Your task to perform on an android device: Search for logitech g903 on walmart.com, select the first entry, add it to the cart, then select checkout. Image 0: 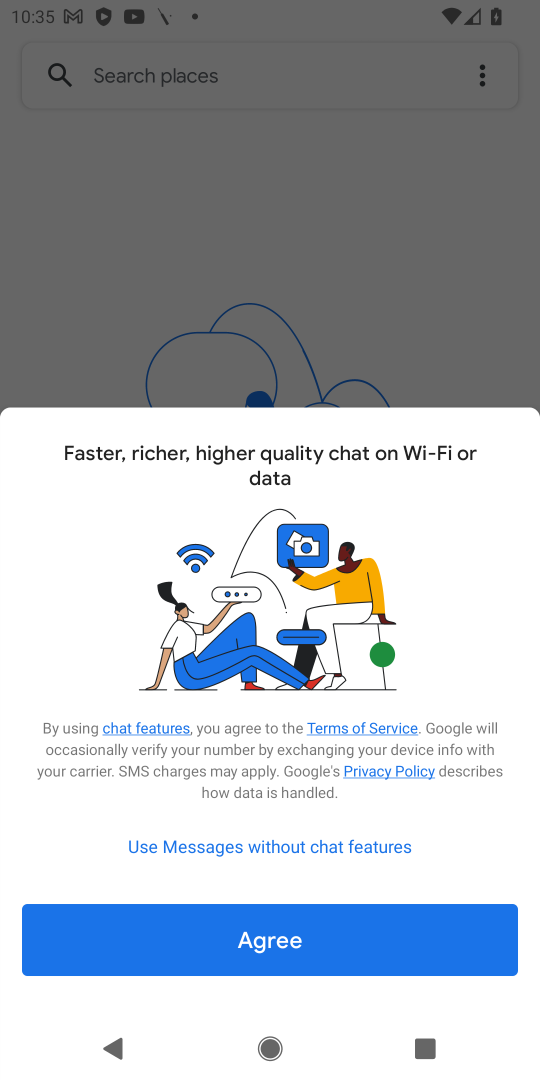
Step 0: press home button
Your task to perform on an android device: Search for logitech g903 on walmart.com, select the first entry, add it to the cart, then select checkout. Image 1: 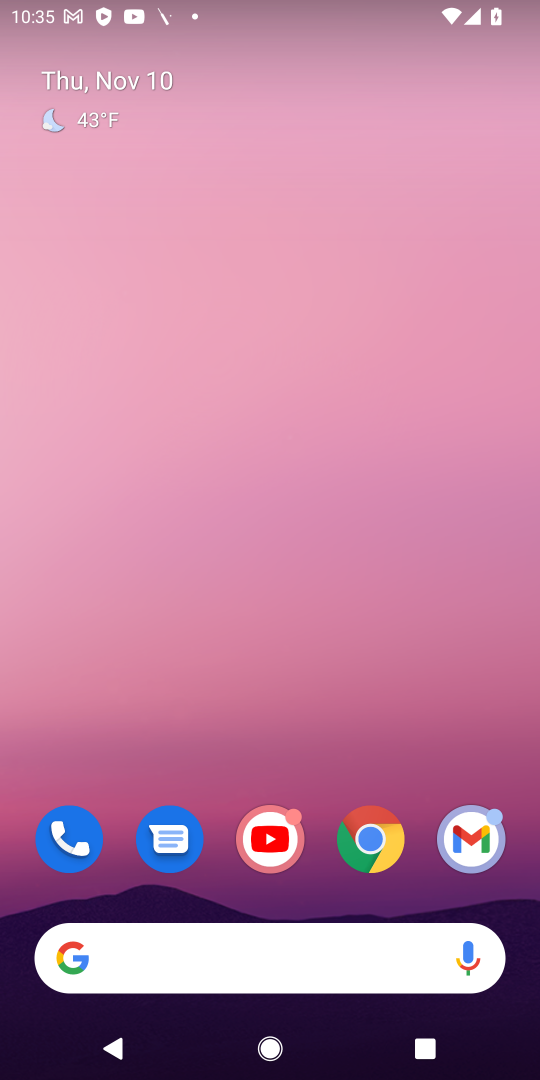
Step 1: click (375, 834)
Your task to perform on an android device: Search for logitech g903 on walmart.com, select the first entry, add it to the cart, then select checkout. Image 2: 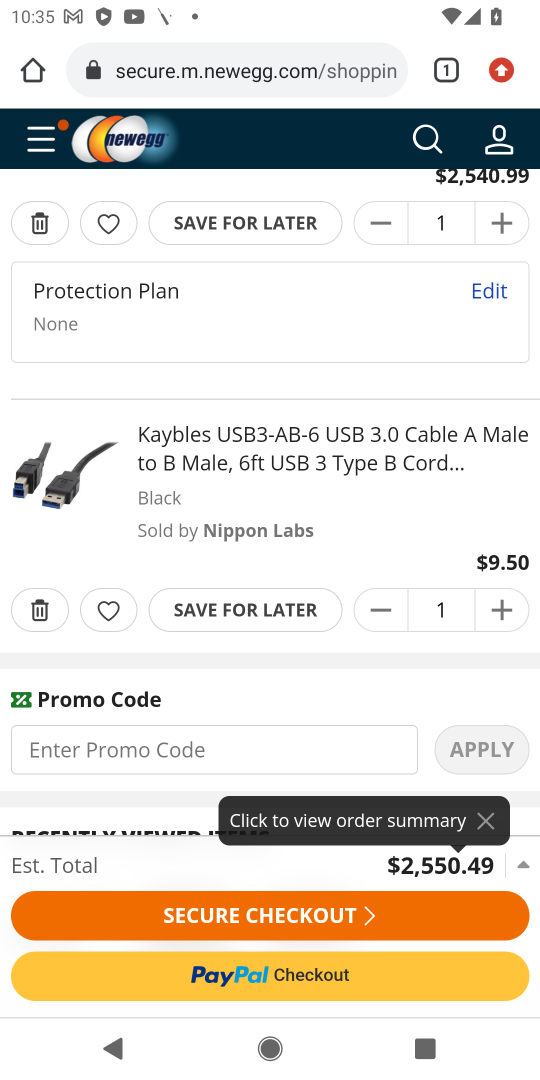
Step 2: click (294, 61)
Your task to perform on an android device: Search for logitech g903 on walmart.com, select the first entry, add it to the cart, then select checkout. Image 3: 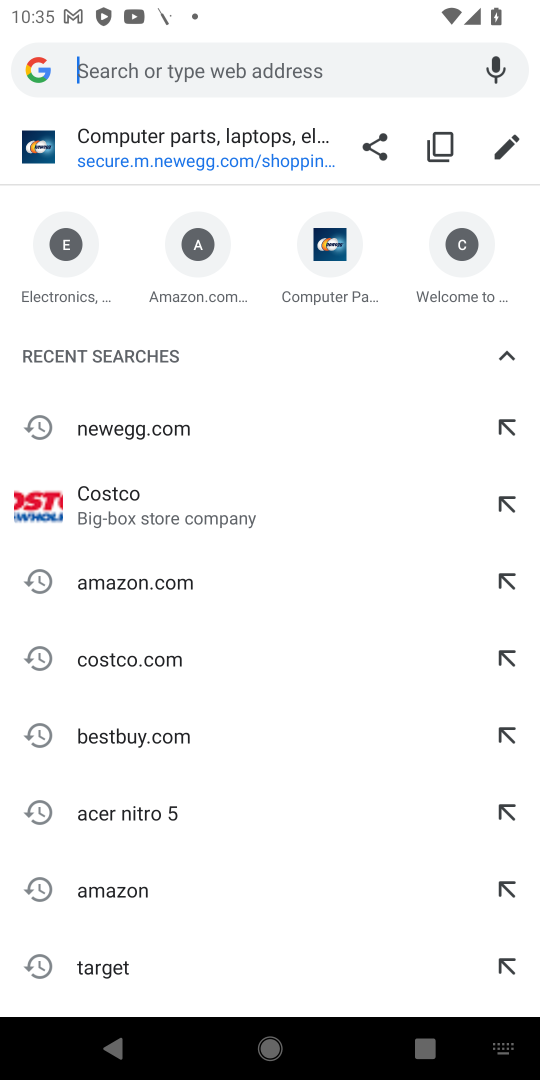
Step 3: drag from (158, 722) to (261, 306)
Your task to perform on an android device: Search for logitech g903 on walmart.com, select the first entry, add it to the cart, then select checkout. Image 4: 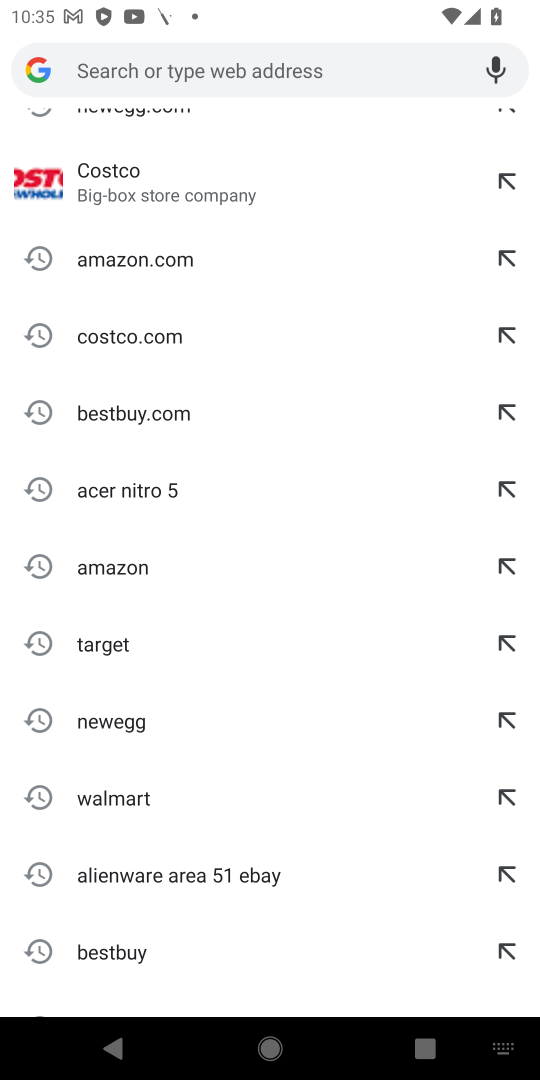
Step 4: click (111, 796)
Your task to perform on an android device: Search for logitech g903 on walmart.com, select the first entry, add it to the cart, then select checkout. Image 5: 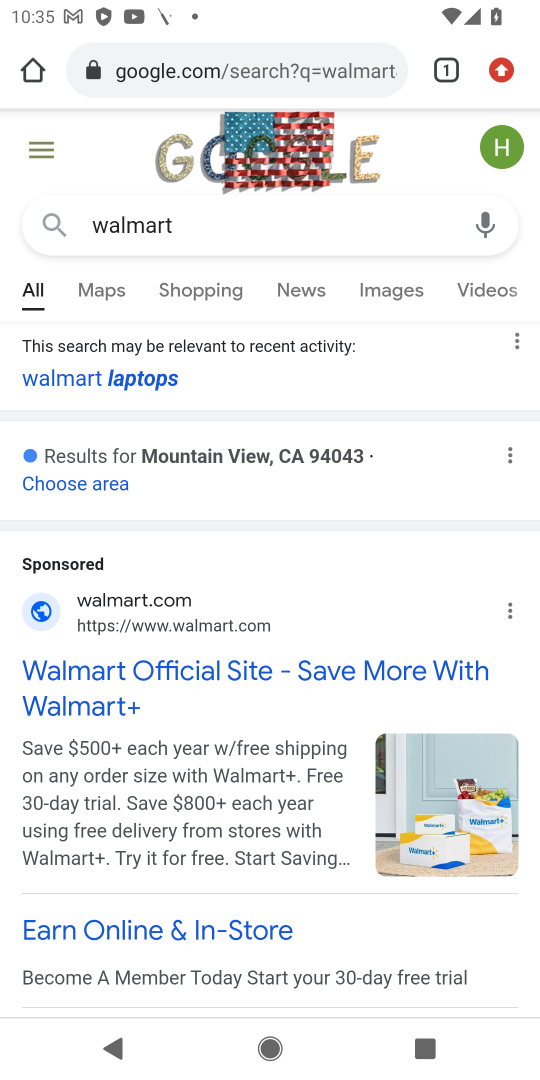
Step 5: drag from (205, 783) to (331, 407)
Your task to perform on an android device: Search for logitech g903 on walmart.com, select the first entry, add it to the cart, then select checkout. Image 6: 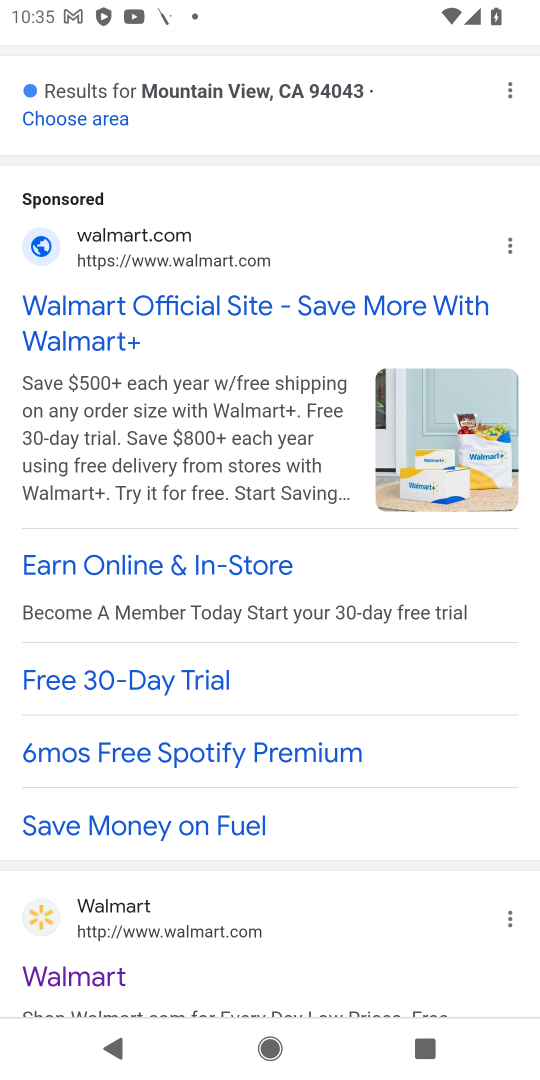
Step 6: click (188, 925)
Your task to perform on an android device: Search for logitech g903 on walmart.com, select the first entry, add it to the cart, then select checkout. Image 7: 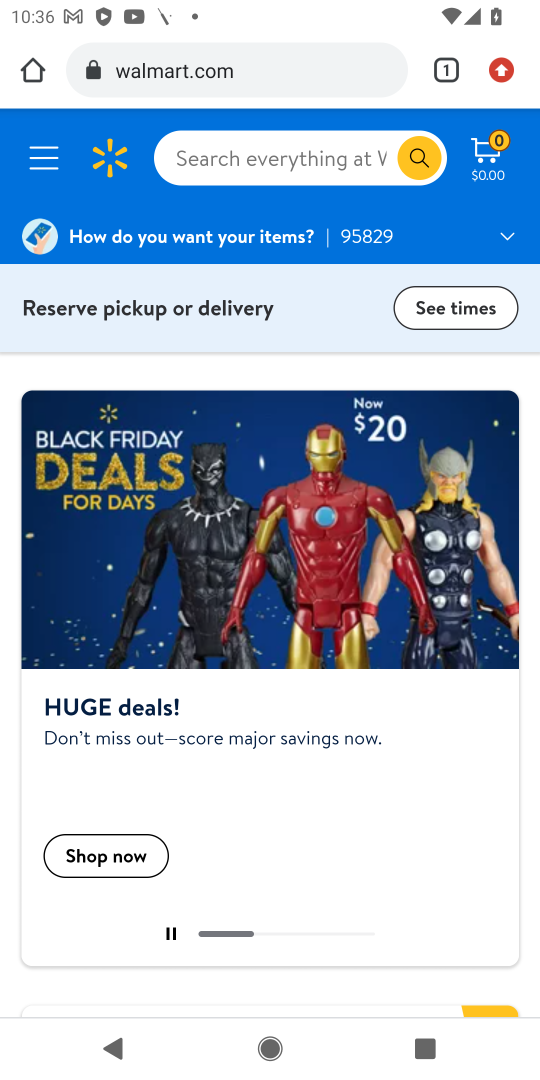
Step 7: click (341, 158)
Your task to perform on an android device: Search for logitech g903 on walmart.com, select the first entry, add it to the cart, then select checkout. Image 8: 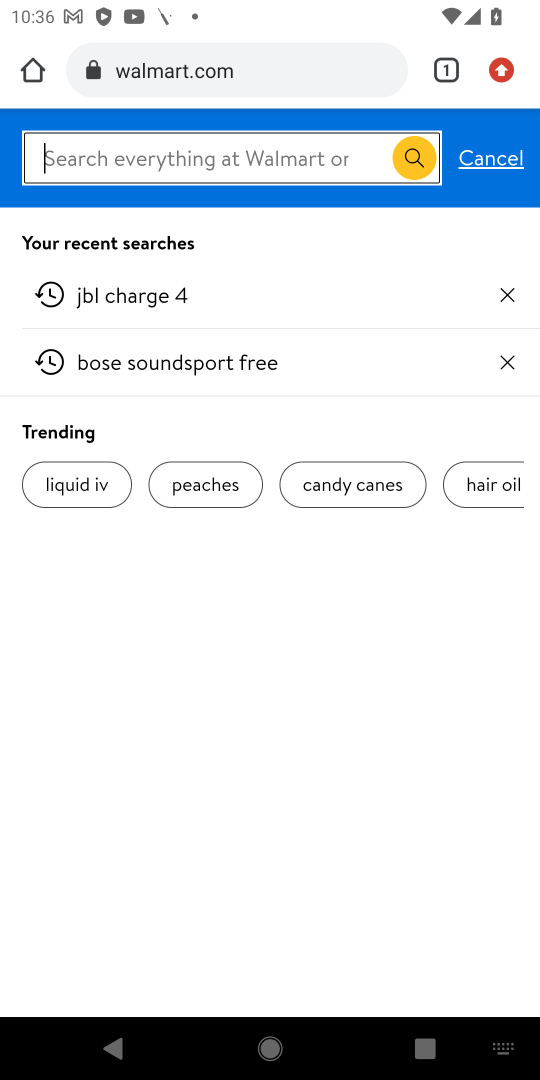
Step 8: type "logitech g903"
Your task to perform on an android device: Search for logitech g903 on walmart.com, select the first entry, add it to the cart, then select checkout. Image 9: 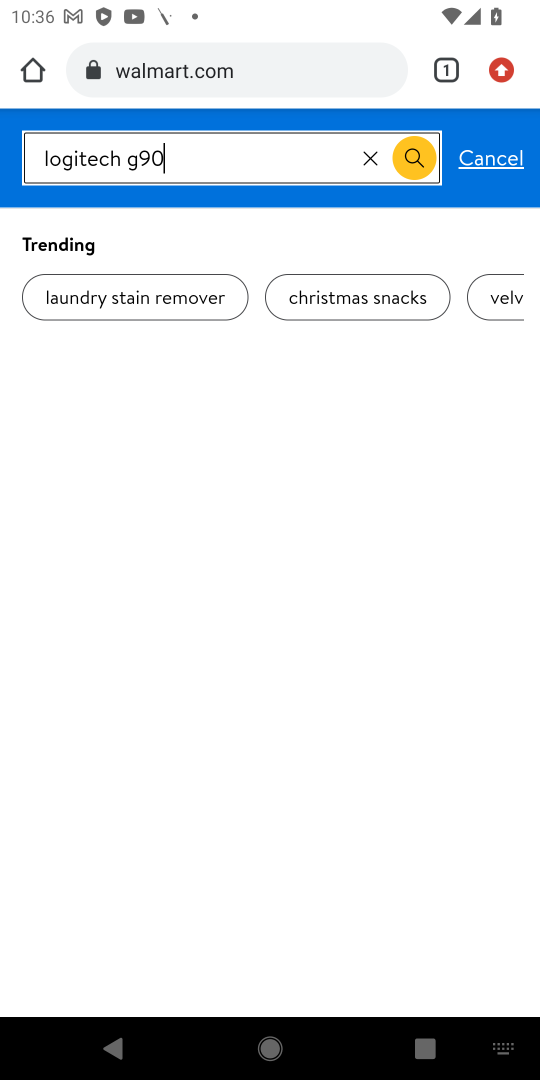
Step 9: press enter
Your task to perform on an android device: Search for logitech g903 on walmart.com, select the first entry, add it to the cart, then select checkout. Image 10: 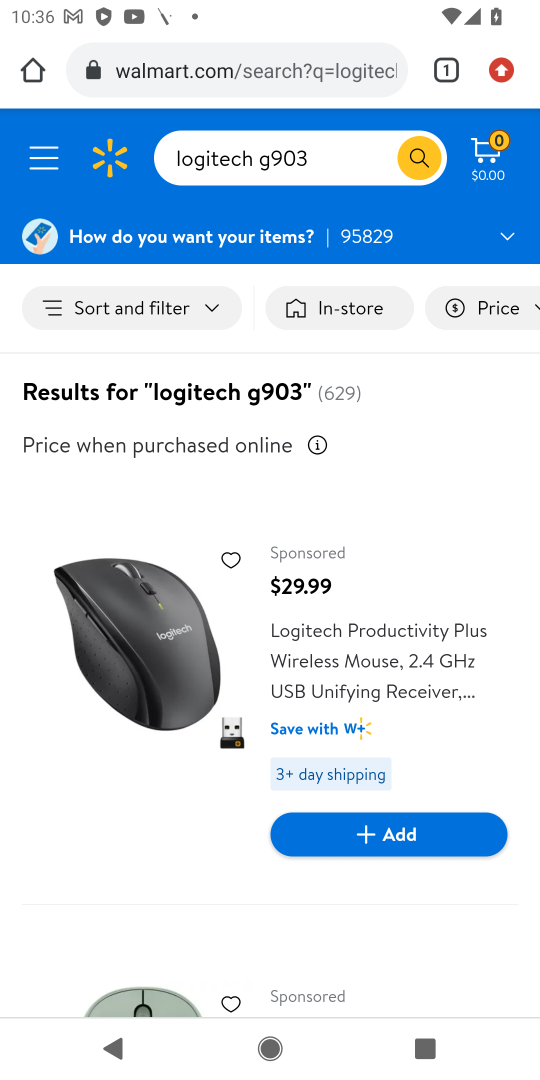
Step 10: drag from (139, 770) to (203, 477)
Your task to perform on an android device: Search for logitech g903 on walmart.com, select the first entry, add it to the cart, then select checkout. Image 11: 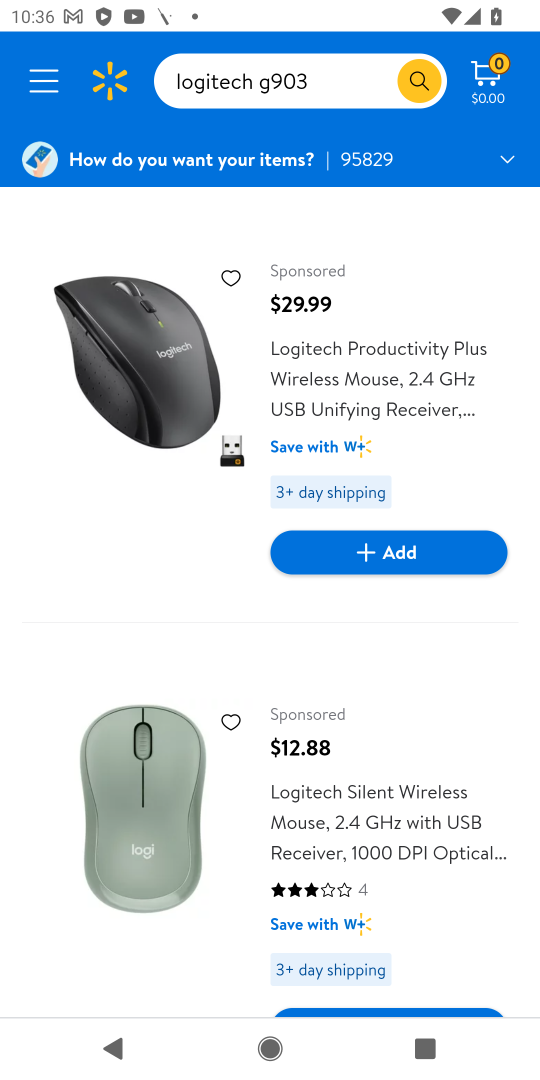
Step 11: click (467, 360)
Your task to perform on an android device: Search for logitech g903 on walmart.com, select the first entry, add it to the cart, then select checkout. Image 12: 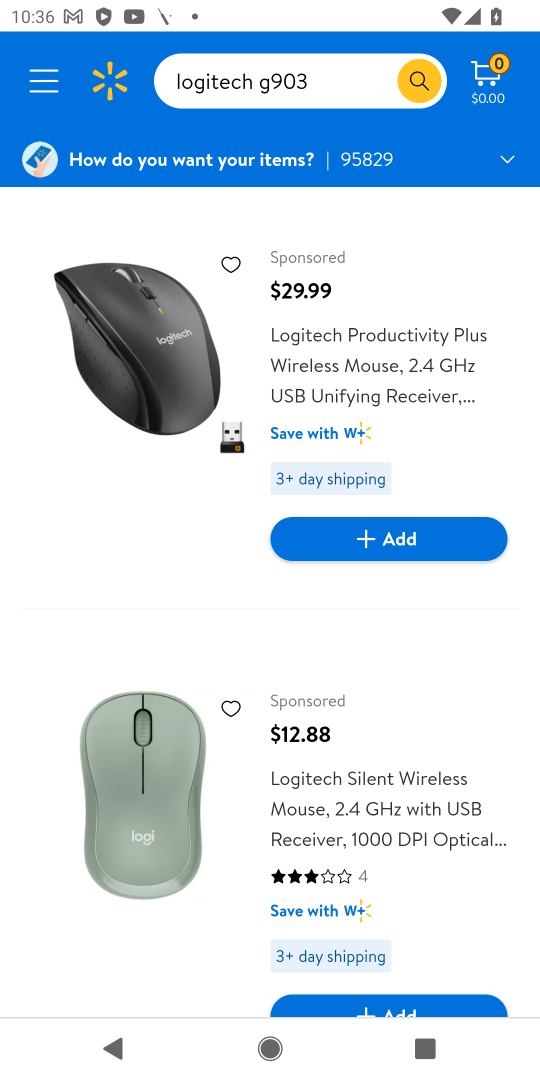
Step 12: drag from (442, 914) to (473, 331)
Your task to perform on an android device: Search for logitech g903 on walmart.com, select the first entry, add it to the cart, then select checkout. Image 13: 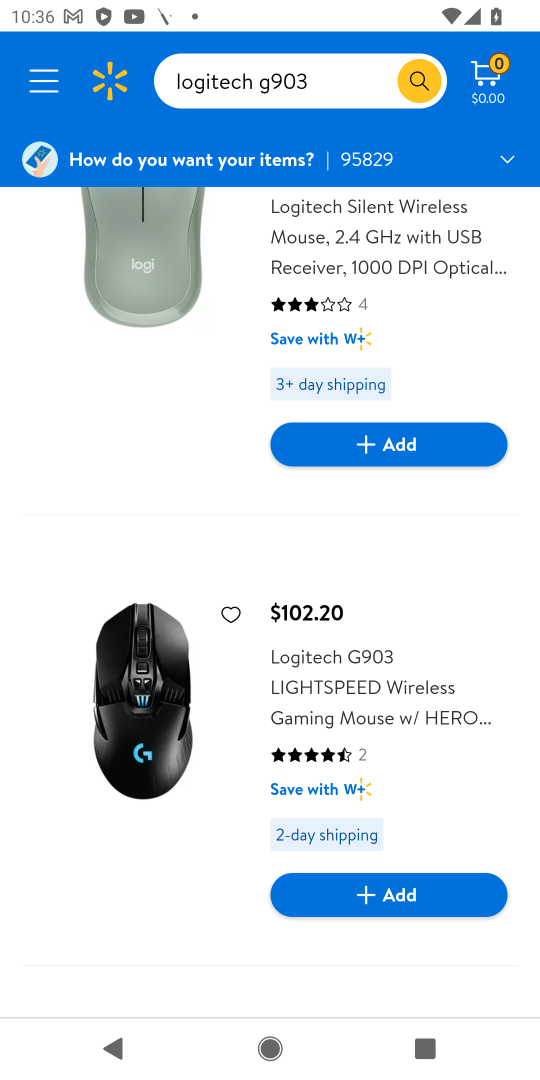
Step 13: click (146, 700)
Your task to perform on an android device: Search for logitech g903 on walmart.com, select the first entry, add it to the cart, then select checkout. Image 14: 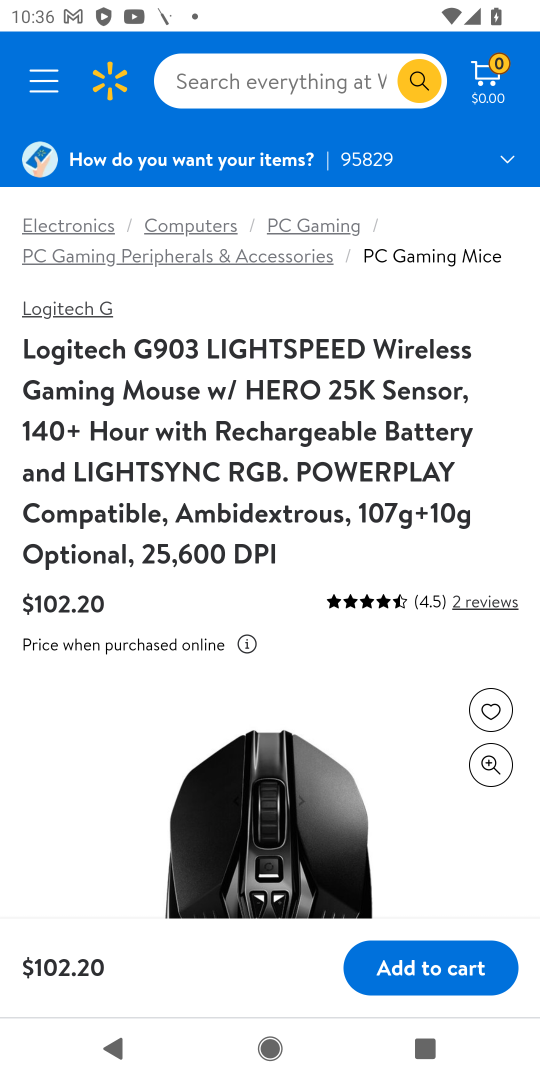
Step 14: click (445, 972)
Your task to perform on an android device: Search for logitech g903 on walmart.com, select the first entry, add it to the cart, then select checkout. Image 15: 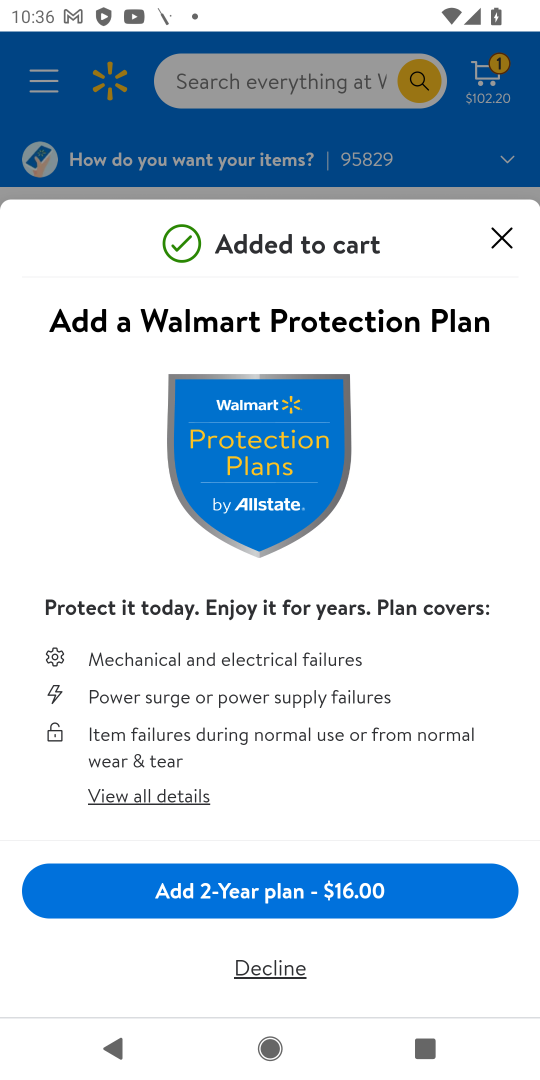
Step 15: click (509, 236)
Your task to perform on an android device: Search for logitech g903 on walmart.com, select the first entry, add it to the cart, then select checkout. Image 16: 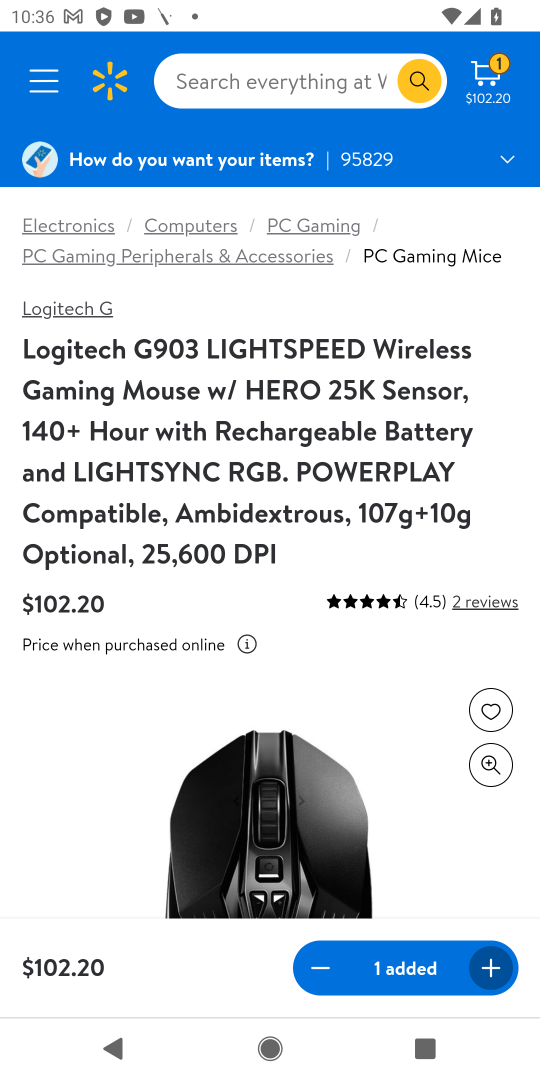
Step 16: click (484, 80)
Your task to perform on an android device: Search for logitech g903 on walmart.com, select the first entry, add it to the cart, then select checkout. Image 17: 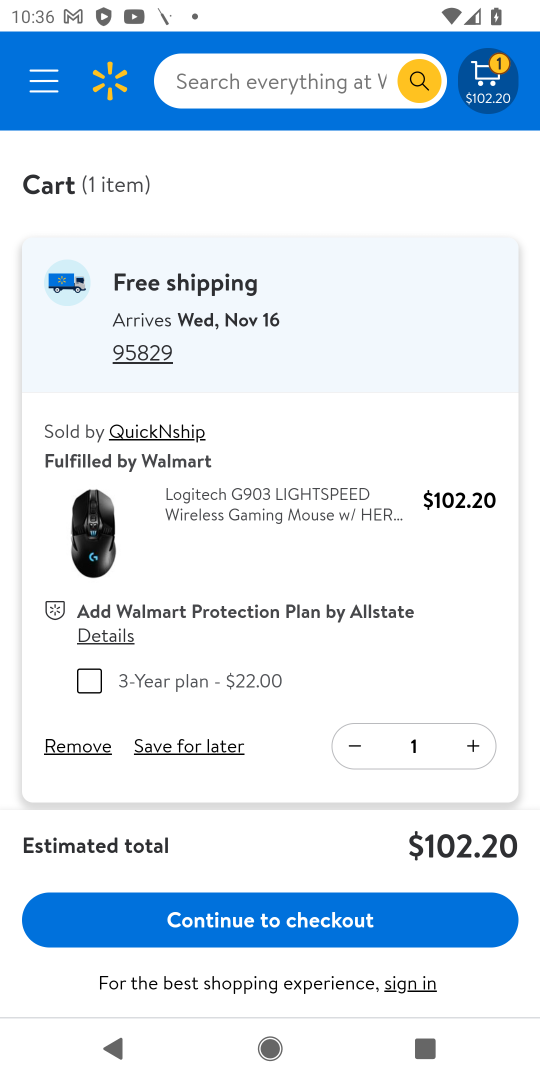
Step 17: click (351, 917)
Your task to perform on an android device: Search for logitech g903 on walmart.com, select the first entry, add it to the cart, then select checkout. Image 18: 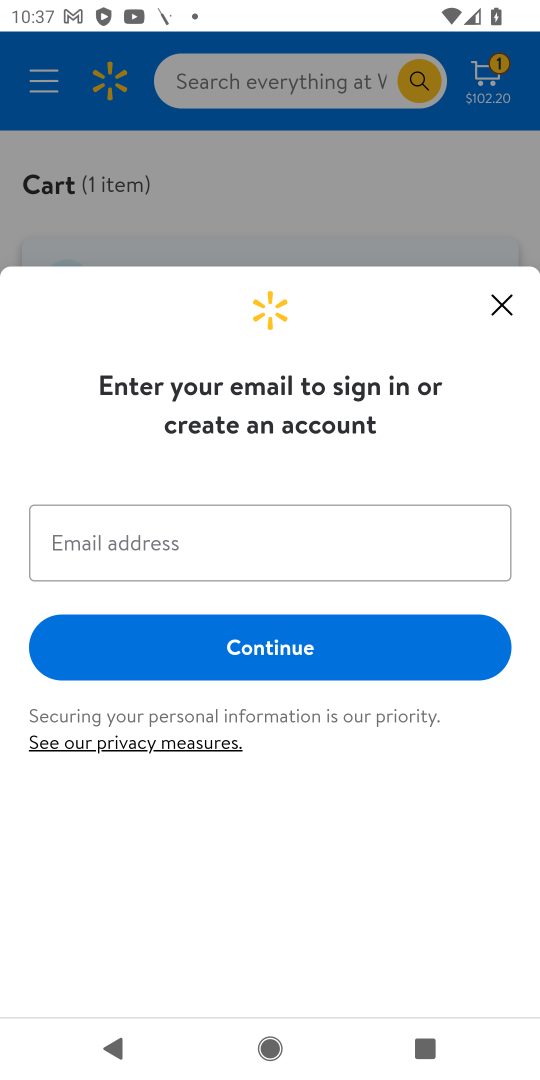
Step 18: task complete